Your task to perform on an android device: open a new tab in the chrome app Image 0: 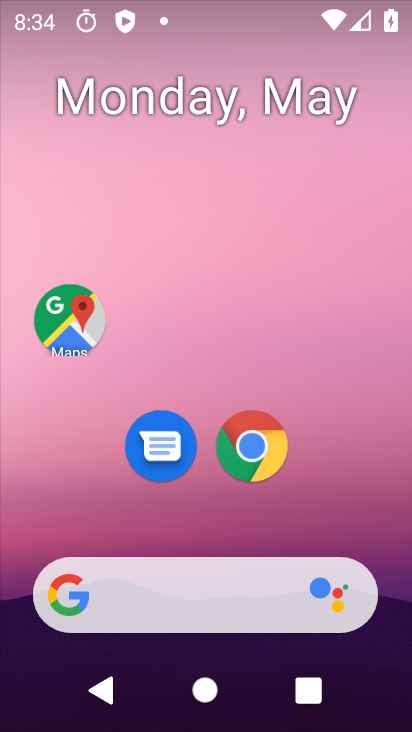
Step 0: click (257, 449)
Your task to perform on an android device: open a new tab in the chrome app Image 1: 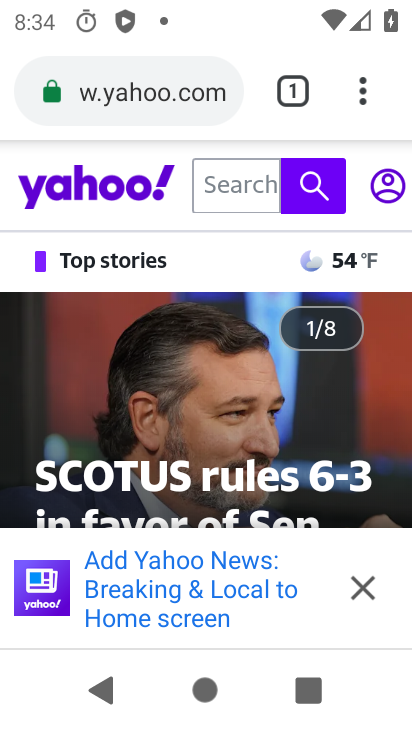
Step 1: click (360, 95)
Your task to perform on an android device: open a new tab in the chrome app Image 2: 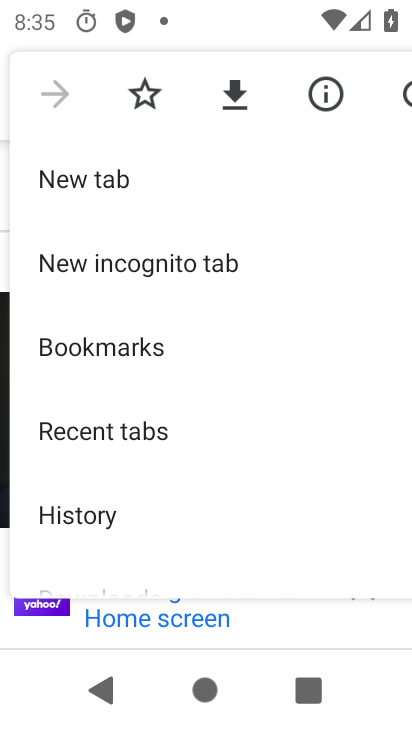
Step 2: click (81, 179)
Your task to perform on an android device: open a new tab in the chrome app Image 3: 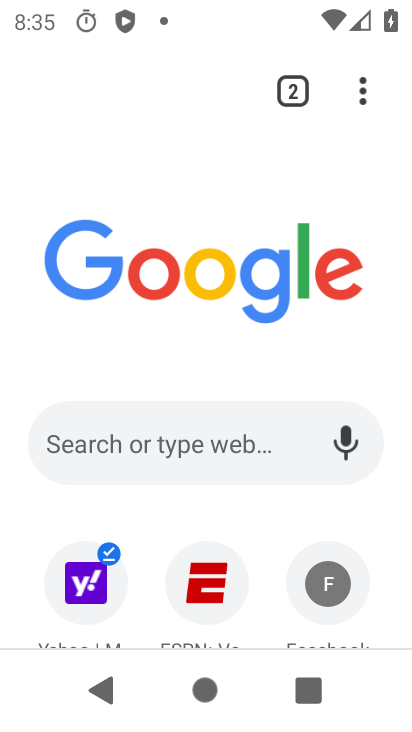
Step 3: task complete